Your task to perform on an android device: Open my contact list Image 0: 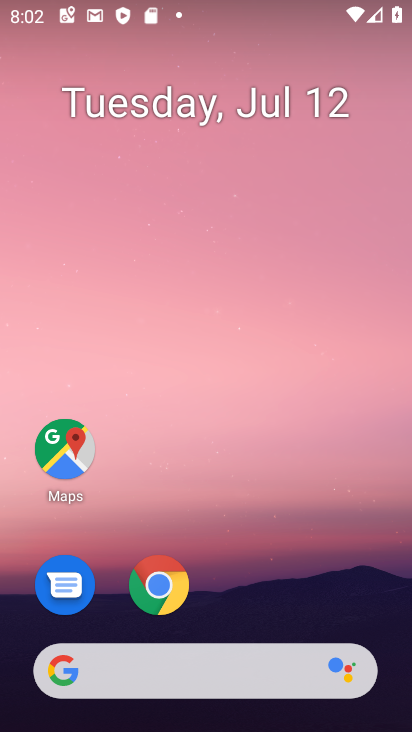
Step 0: drag from (291, 509) to (315, 6)
Your task to perform on an android device: Open my contact list Image 1: 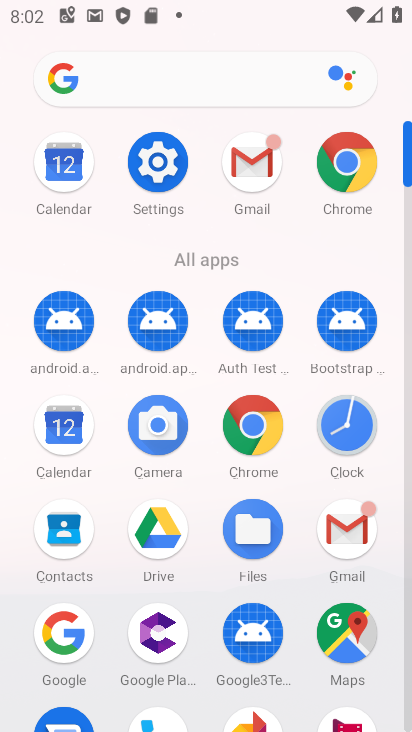
Step 1: click (73, 527)
Your task to perform on an android device: Open my contact list Image 2: 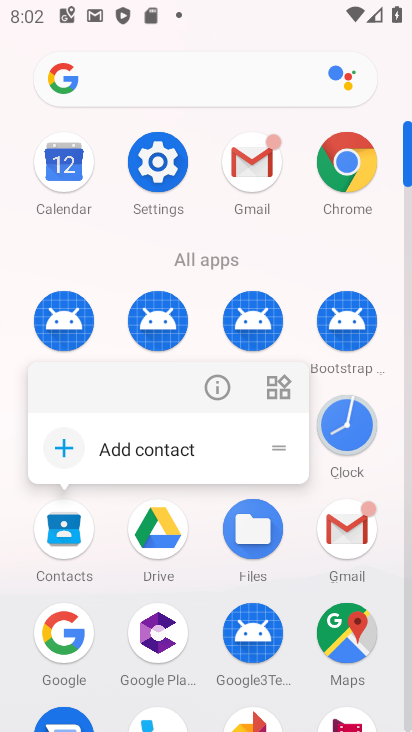
Step 2: click (63, 536)
Your task to perform on an android device: Open my contact list Image 3: 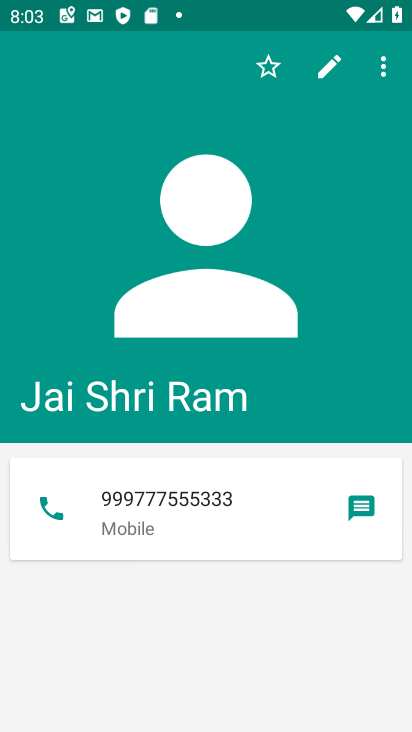
Step 3: task complete